Your task to perform on an android device: turn on sleep mode Image 0: 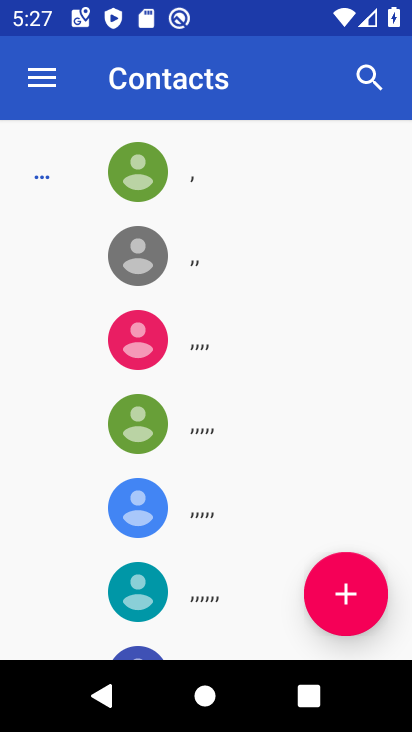
Step 0: press home button
Your task to perform on an android device: turn on sleep mode Image 1: 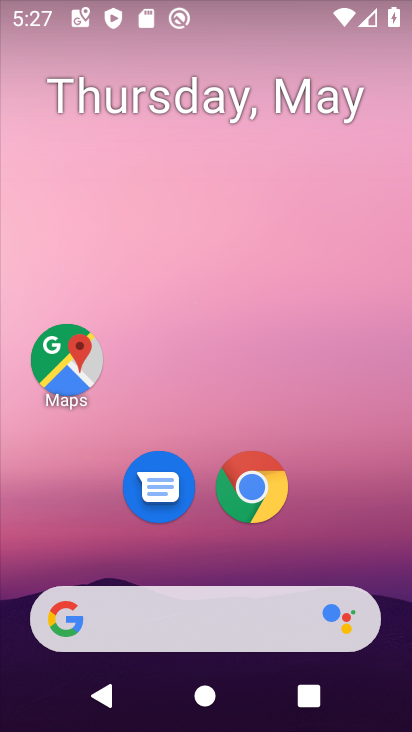
Step 1: drag from (301, 435) to (329, 30)
Your task to perform on an android device: turn on sleep mode Image 2: 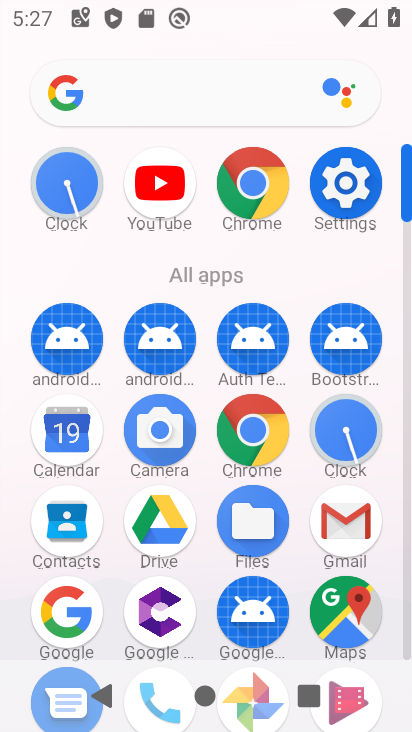
Step 2: click (343, 195)
Your task to perform on an android device: turn on sleep mode Image 3: 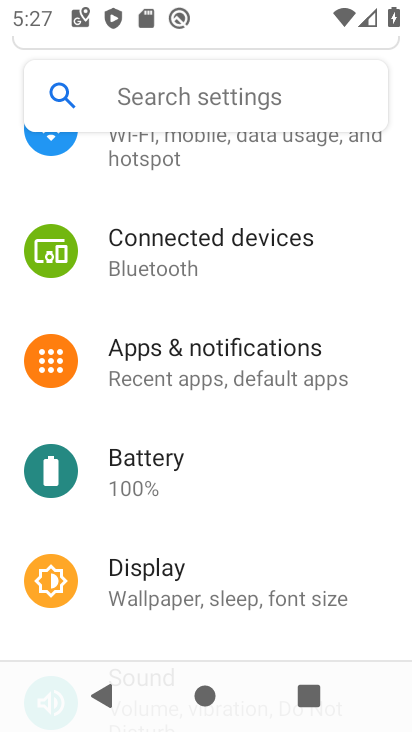
Step 3: click (235, 591)
Your task to perform on an android device: turn on sleep mode Image 4: 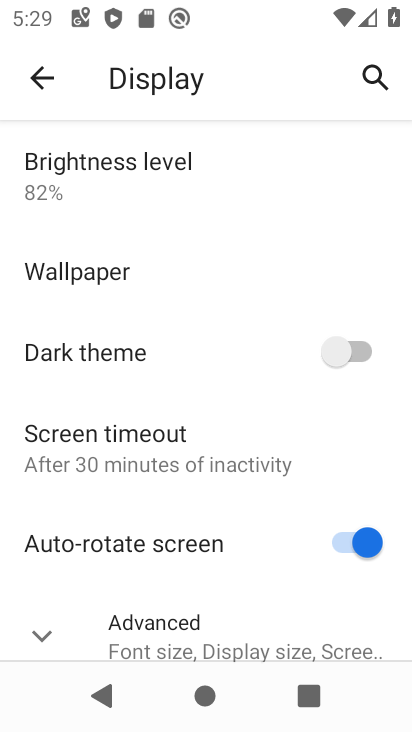
Step 4: task complete